Your task to perform on an android device: manage bookmarks in the chrome app Image 0: 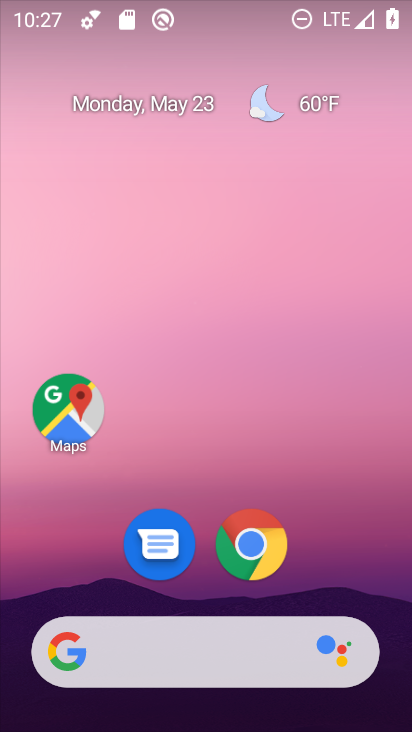
Step 0: click (271, 538)
Your task to perform on an android device: manage bookmarks in the chrome app Image 1: 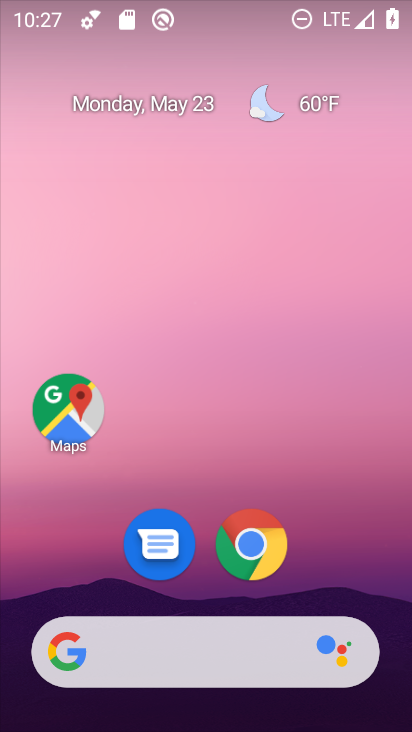
Step 1: click (271, 538)
Your task to perform on an android device: manage bookmarks in the chrome app Image 2: 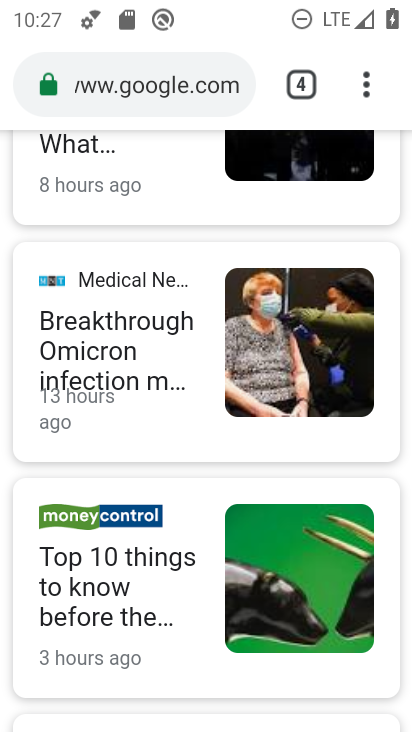
Step 2: click (367, 85)
Your task to perform on an android device: manage bookmarks in the chrome app Image 3: 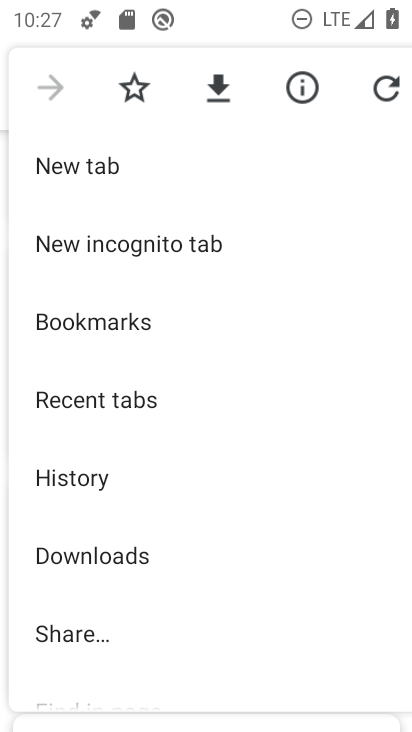
Step 3: click (123, 323)
Your task to perform on an android device: manage bookmarks in the chrome app Image 4: 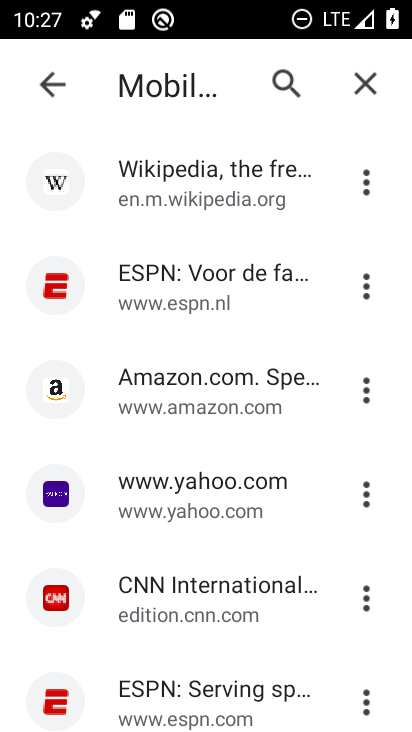
Step 4: click (366, 283)
Your task to perform on an android device: manage bookmarks in the chrome app Image 5: 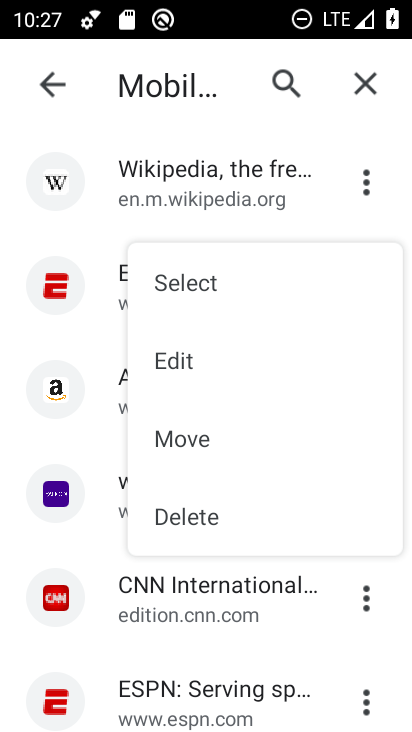
Step 5: click (199, 515)
Your task to perform on an android device: manage bookmarks in the chrome app Image 6: 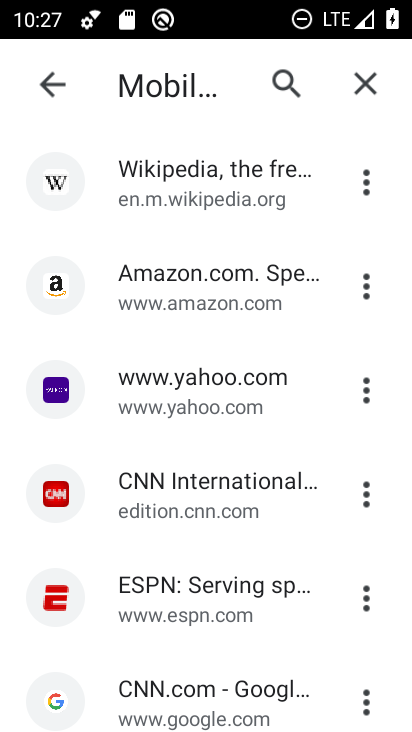
Step 6: task complete